Your task to perform on an android device: Check the news Image 0: 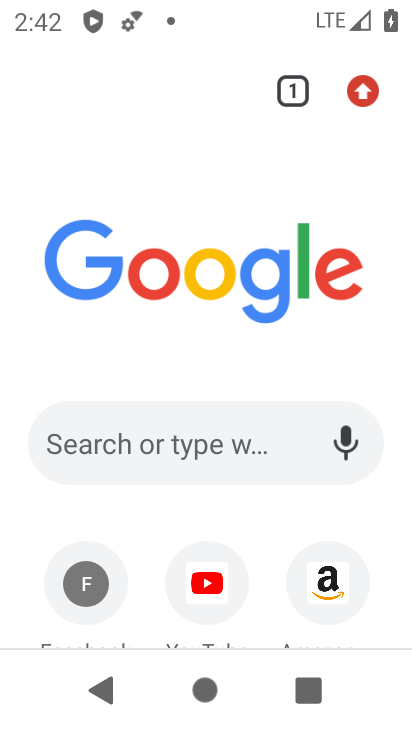
Step 0: press home button
Your task to perform on an android device: Check the news Image 1: 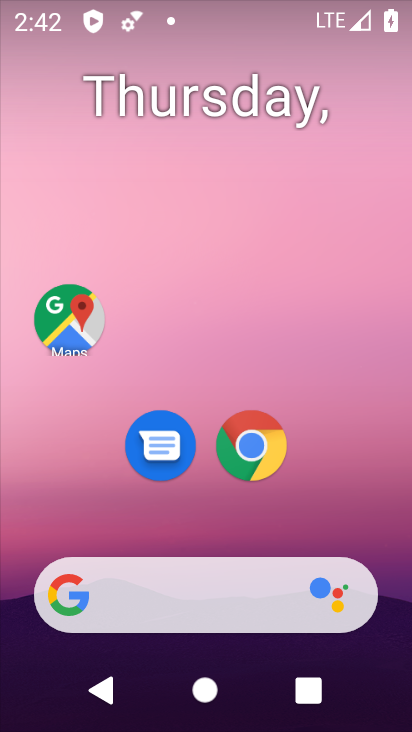
Step 1: drag from (344, 489) to (305, 11)
Your task to perform on an android device: Check the news Image 2: 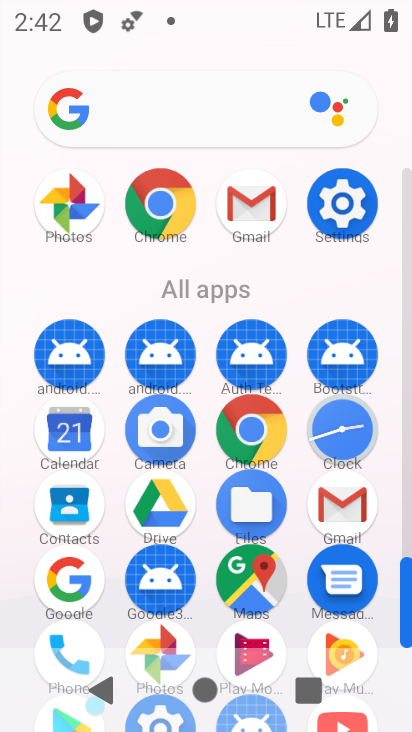
Step 2: click (70, 584)
Your task to perform on an android device: Check the news Image 3: 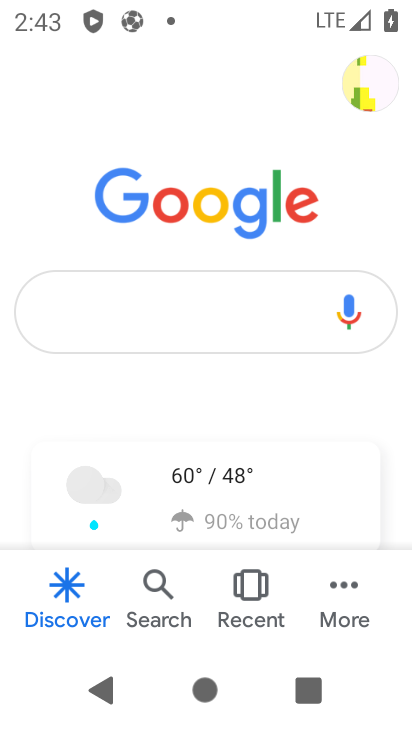
Step 3: click (211, 302)
Your task to perform on an android device: Check the news Image 4: 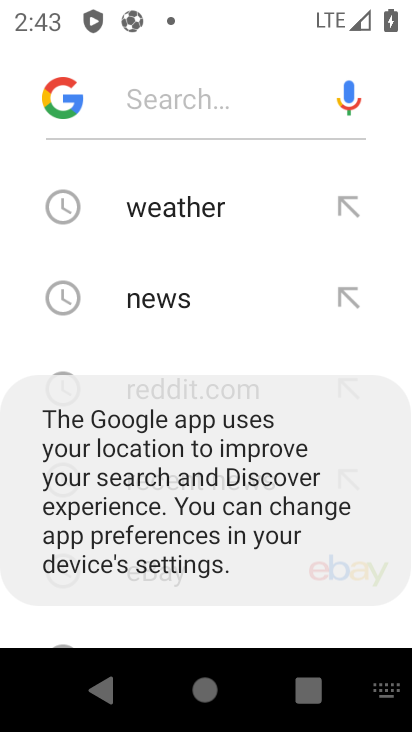
Step 4: click (176, 302)
Your task to perform on an android device: Check the news Image 5: 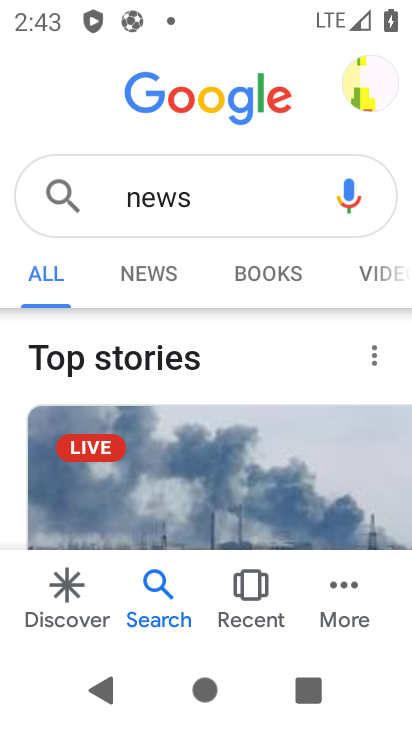
Step 5: task complete